Your task to perform on an android device: turn vacation reply on in the gmail app Image 0: 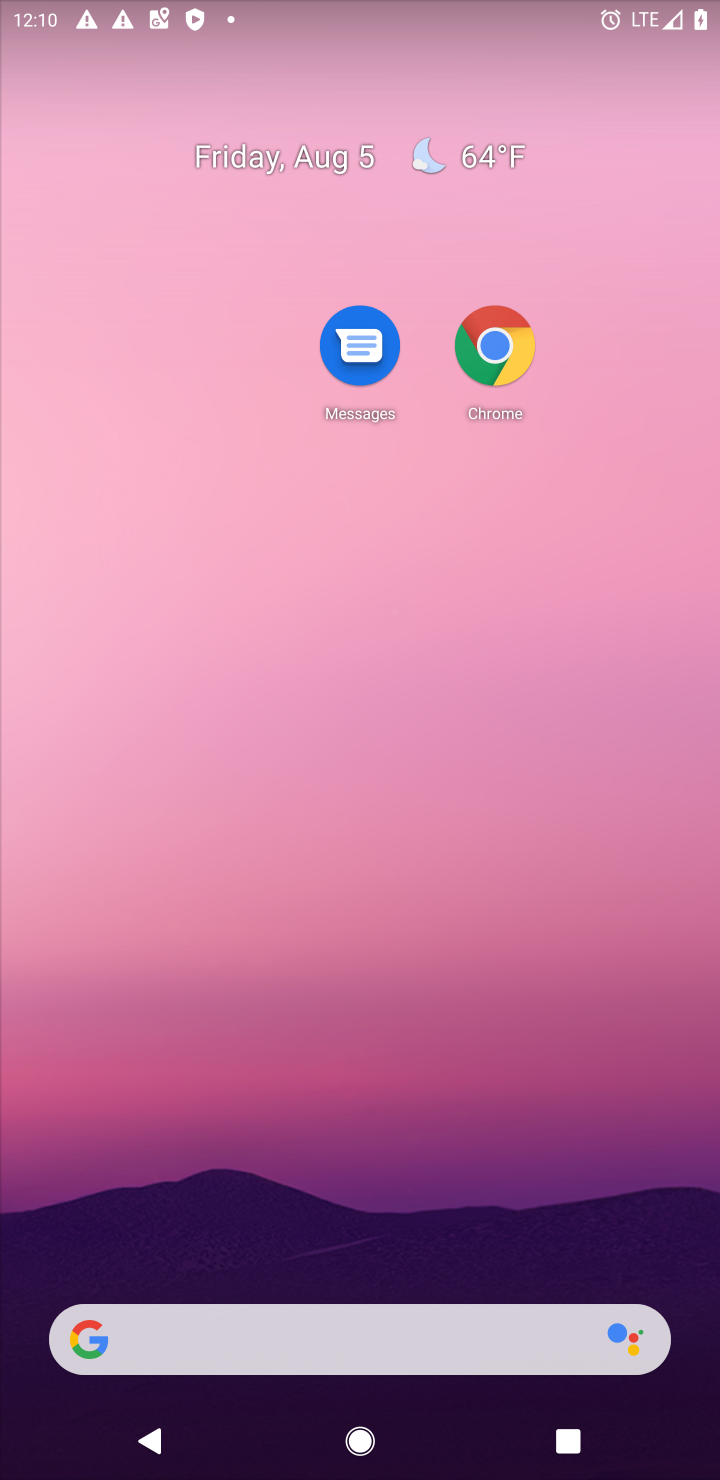
Step 0: drag from (347, 1288) to (294, 179)
Your task to perform on an android device: turn vacation reply on in the gmail app Image 1: 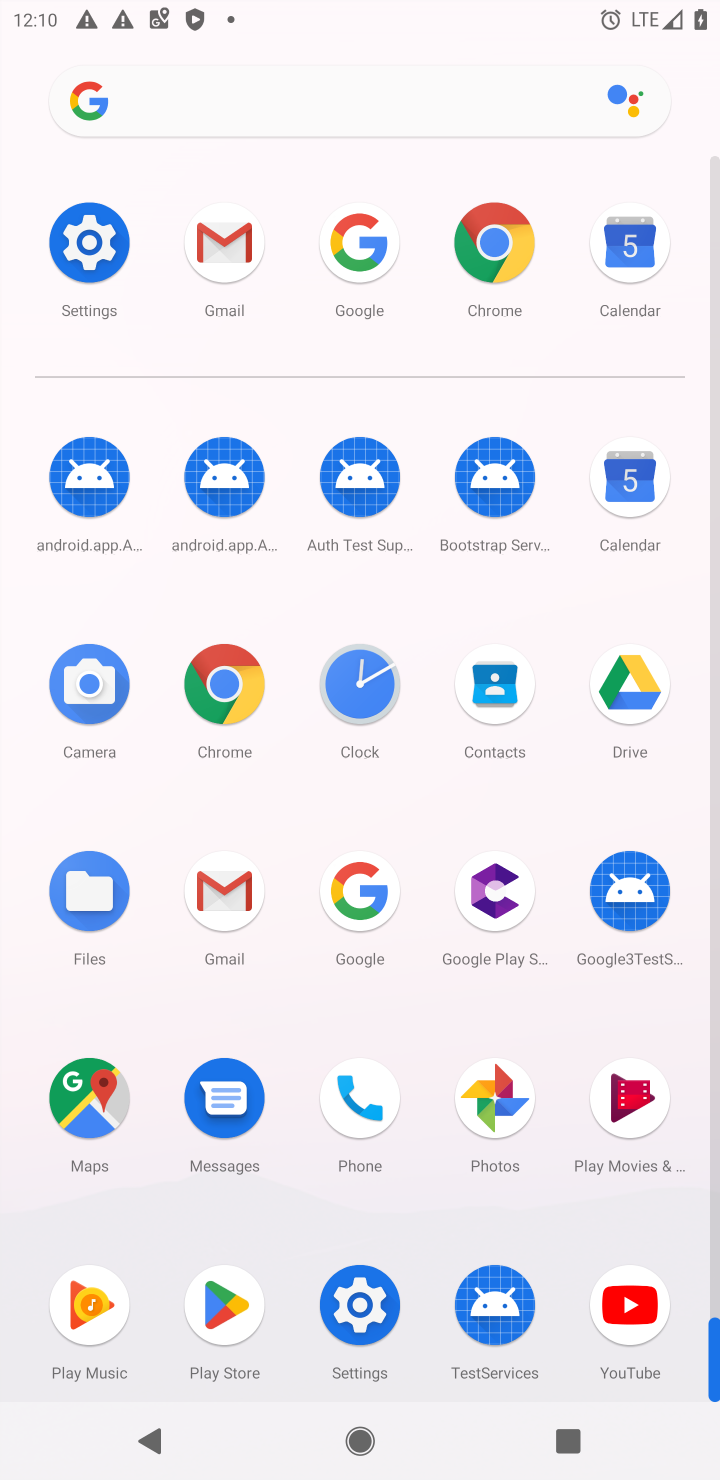
Step 1: click (243, 254)
Your task to perform on an android device: turn vacation reply on in the gmail app Image 2: 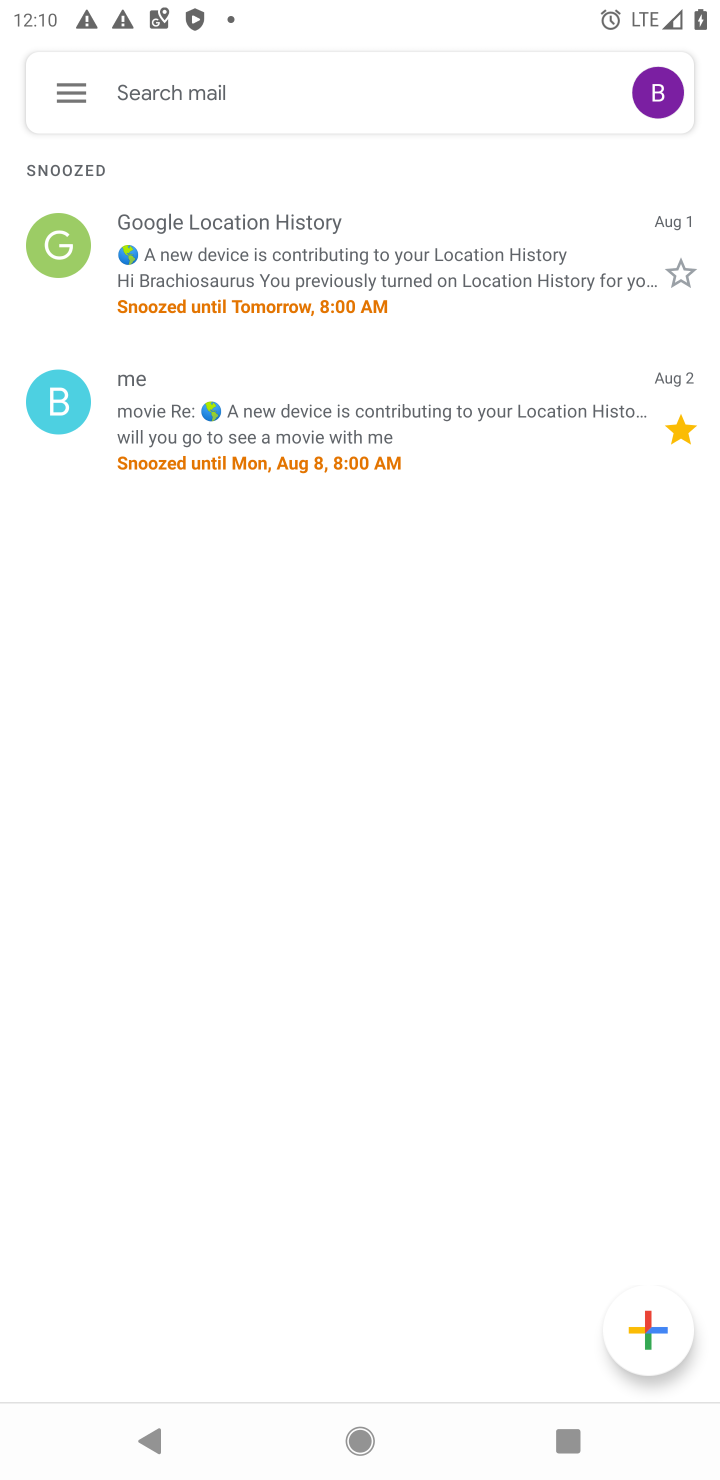
Step 2: click (82, 104)
Your task to perform on an android device: turn vacation reply on in the gmail app Image 3: 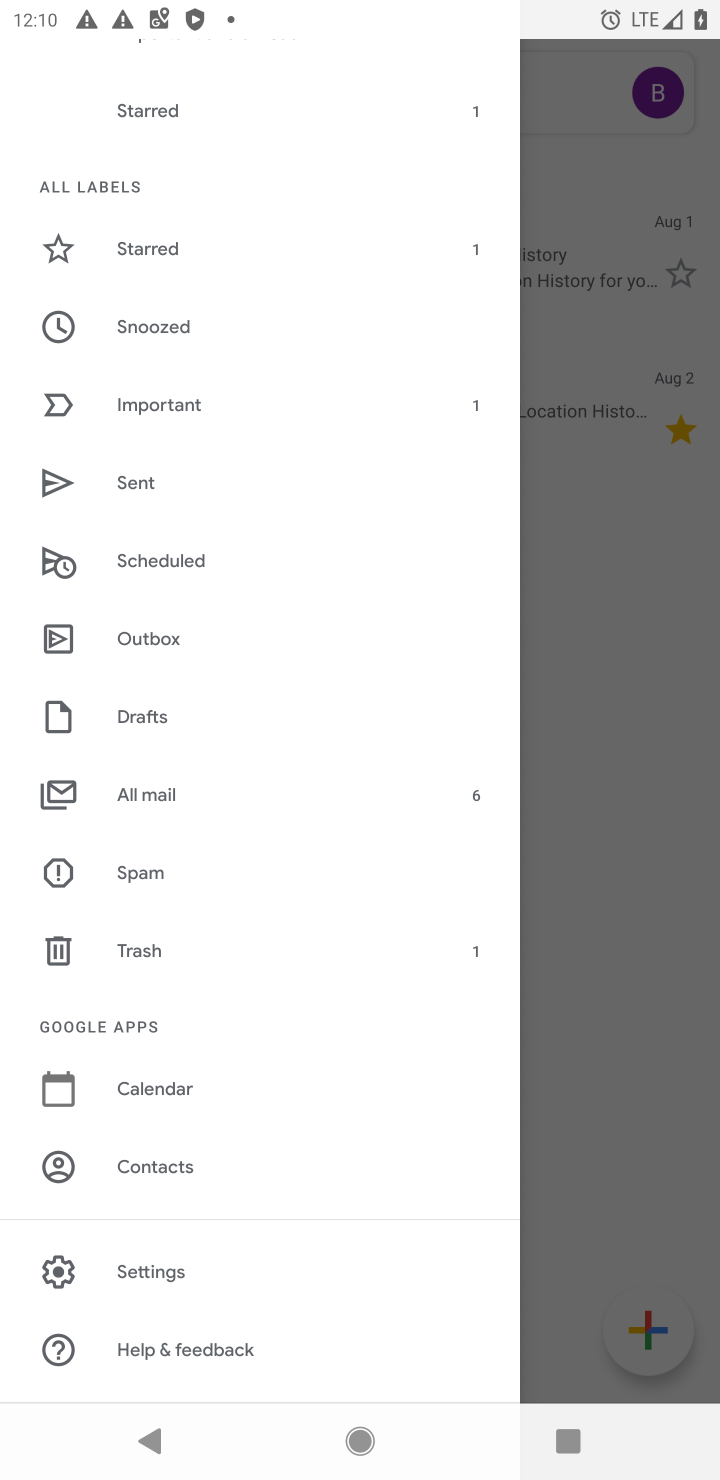
Step 3: click (115, 1280)
Your task to perform on an android device: turn vacation reply on in the gmail app Image 4: 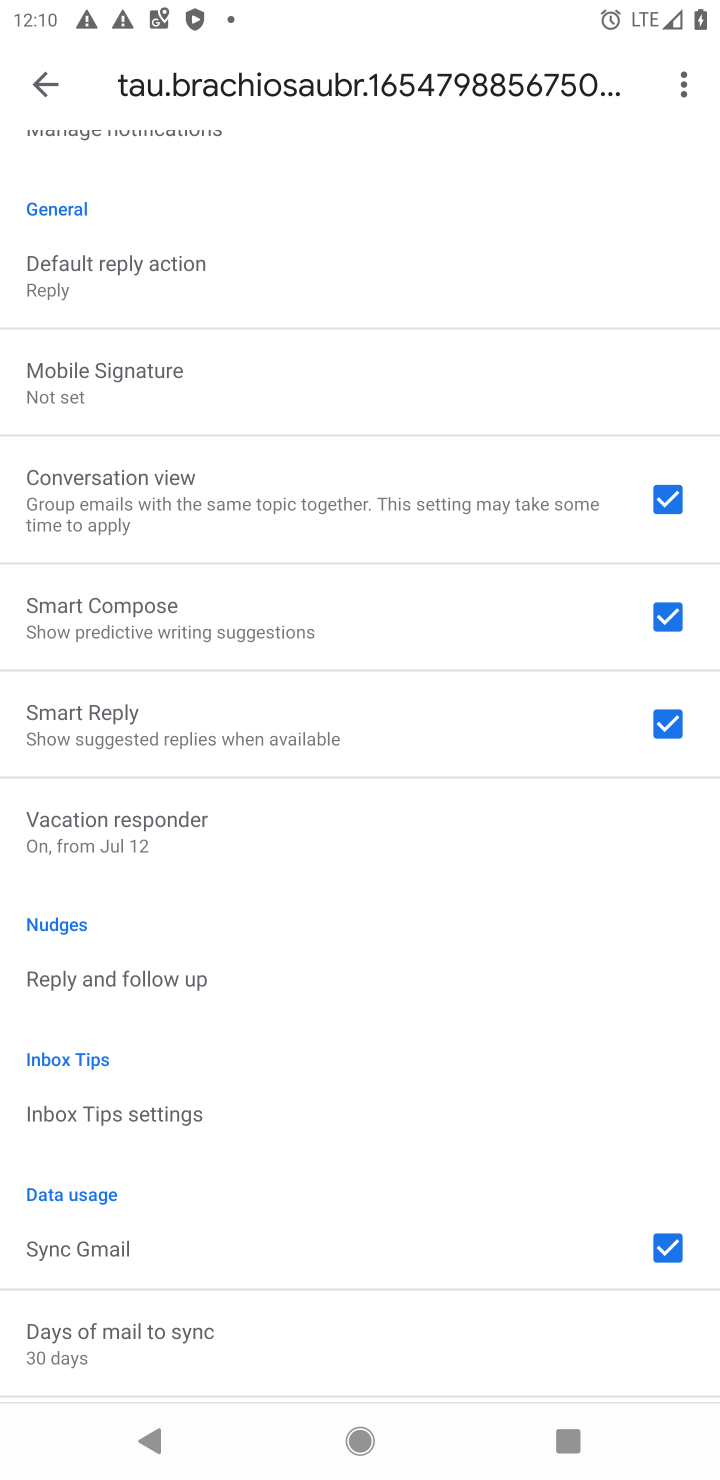
Step 4: drag from (213, 1105) to (182, 217)
Your task to perform on an android device: turn vacation reply on in the gmail app Image 5: 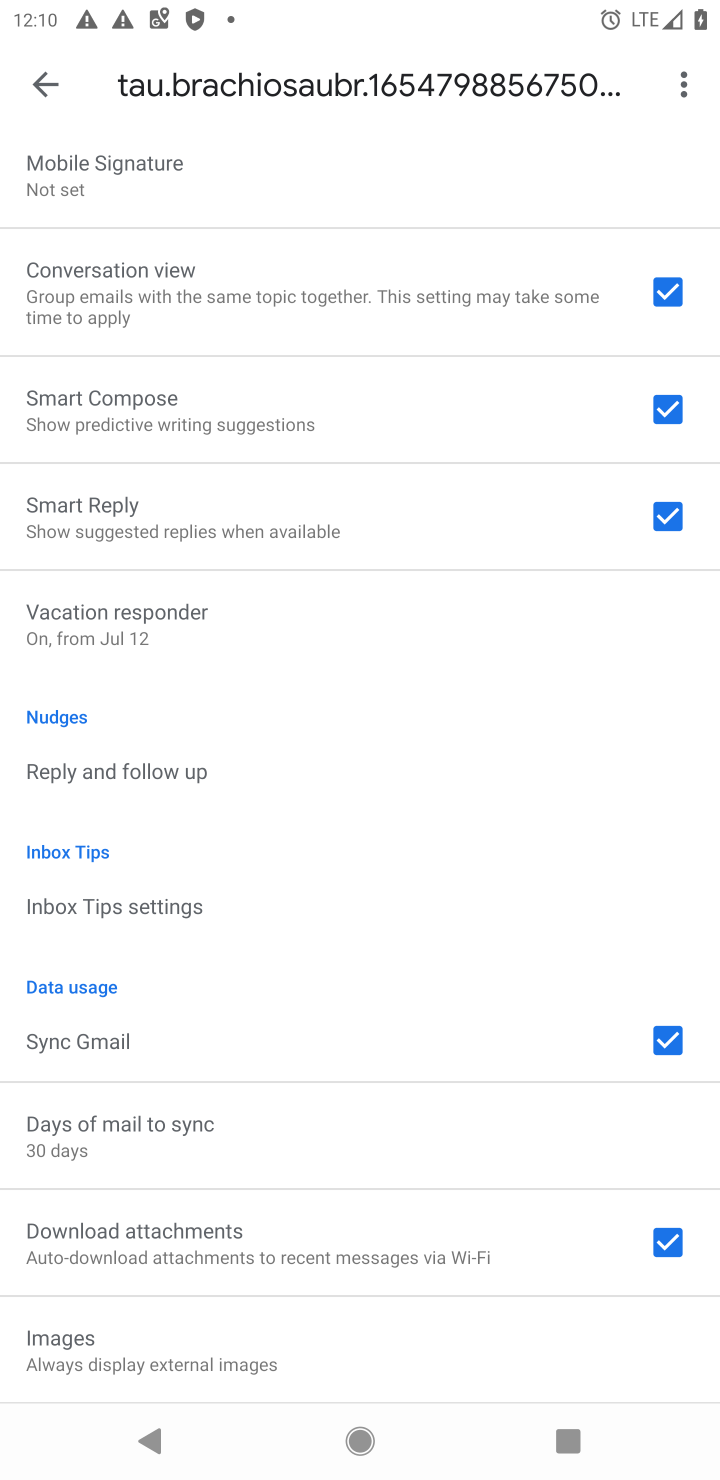
Step 5: drag from (198, 1279) to (147, 476)
Your task to perform on an android device: turn vacation reply on in the gmail app Image 6: 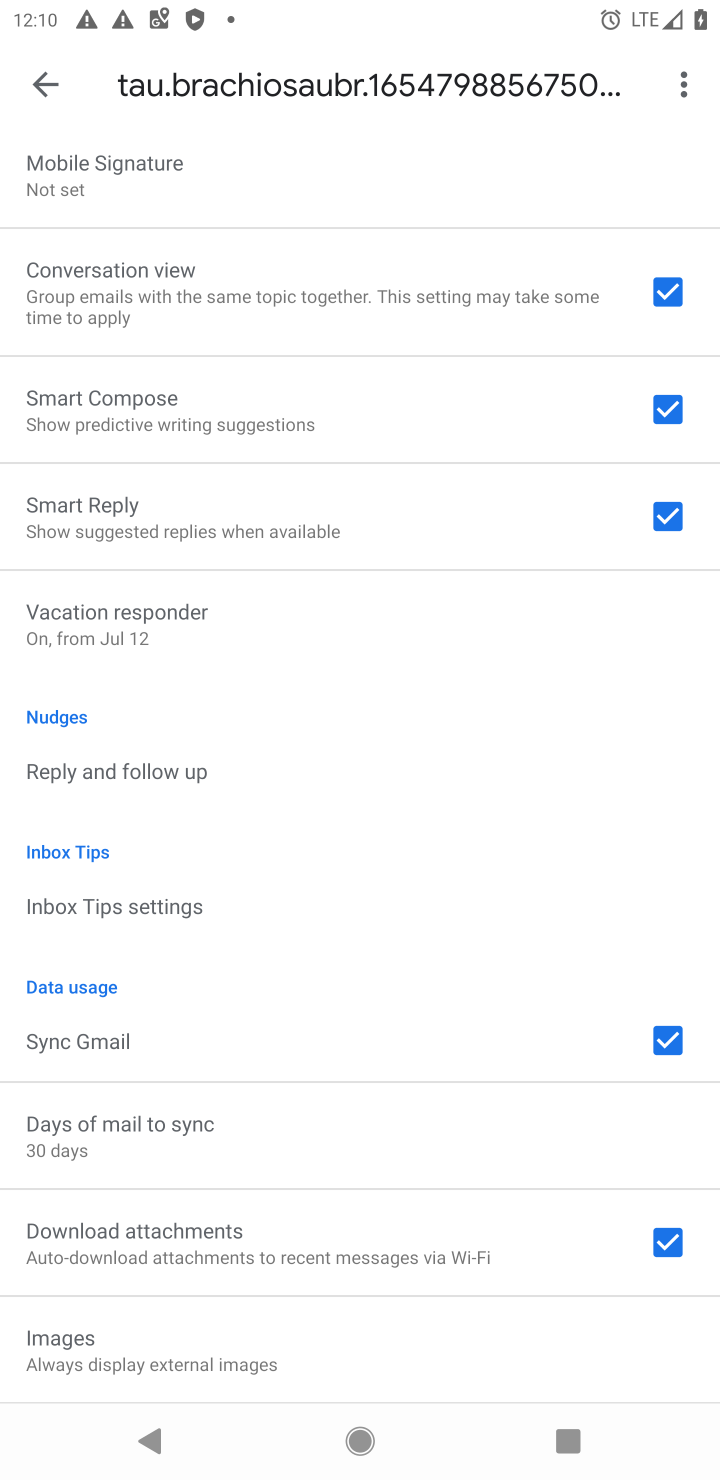
Step 6: click (74, 648)
Your task to perform on an android device: turn vacation reply on in the gmail app Image 7: 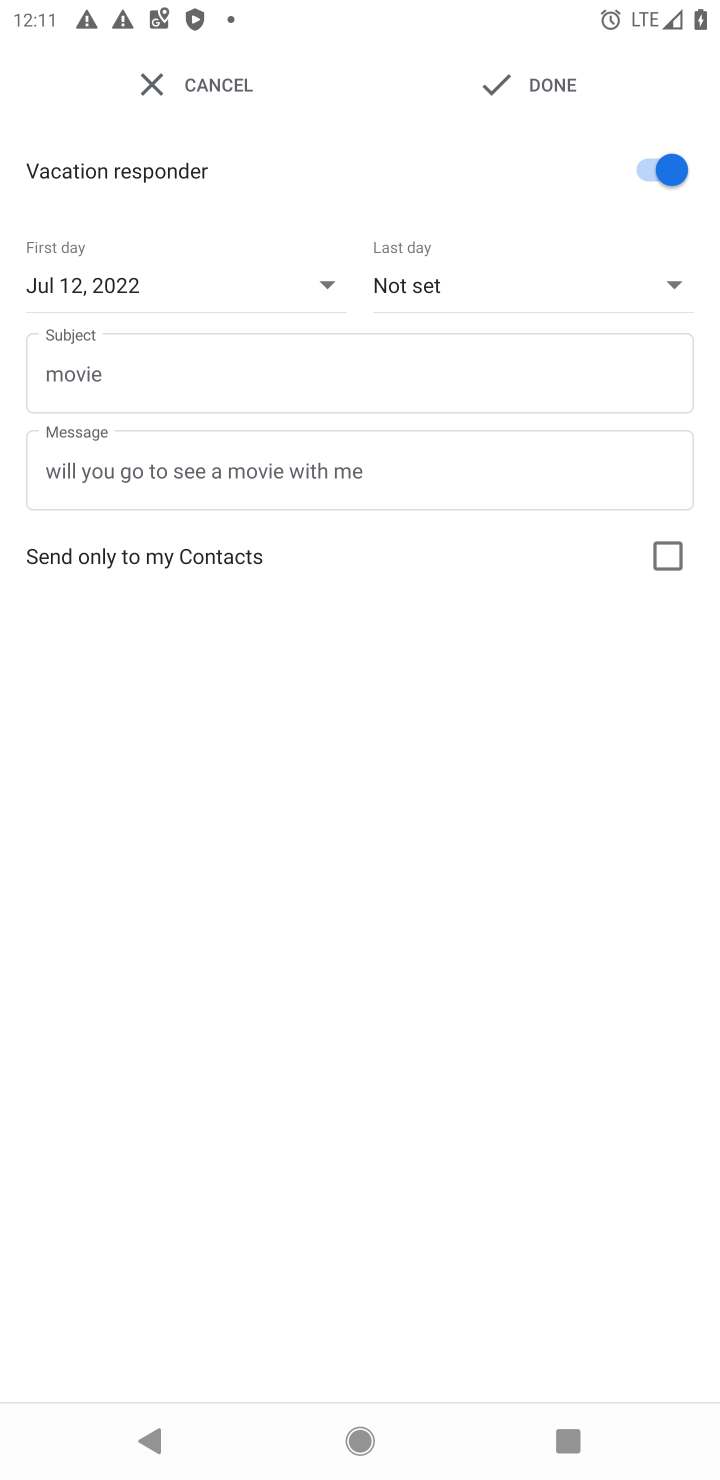
Step 7: task complete